Your task to perform on an android device: What's the latest video from GameSpot Reviews? Image 0: 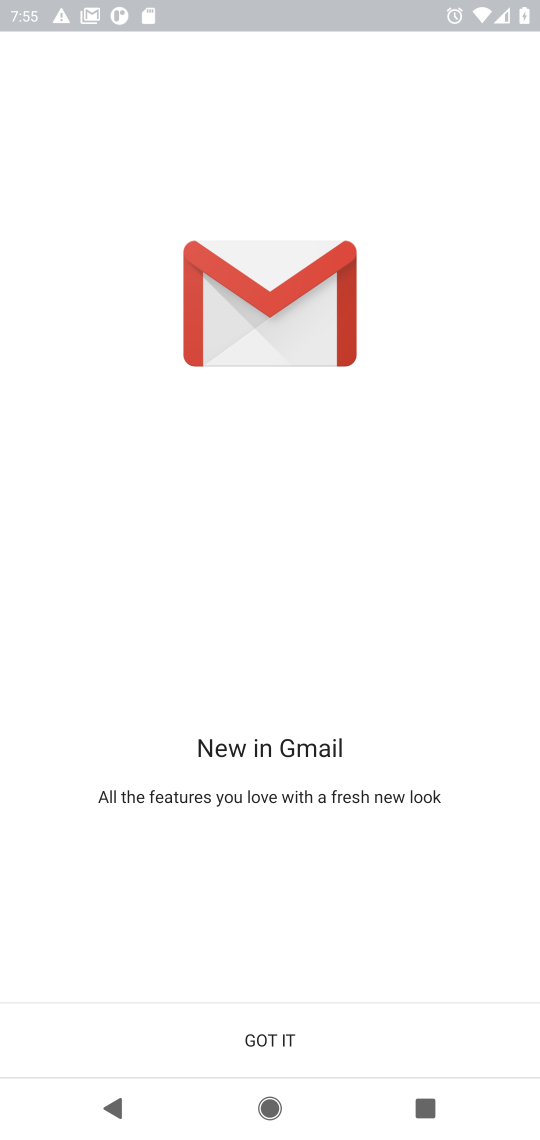
Step 0: press home button
Your task to perform on an android device: What's the latest video from GameSpot Reviews? Image 1: 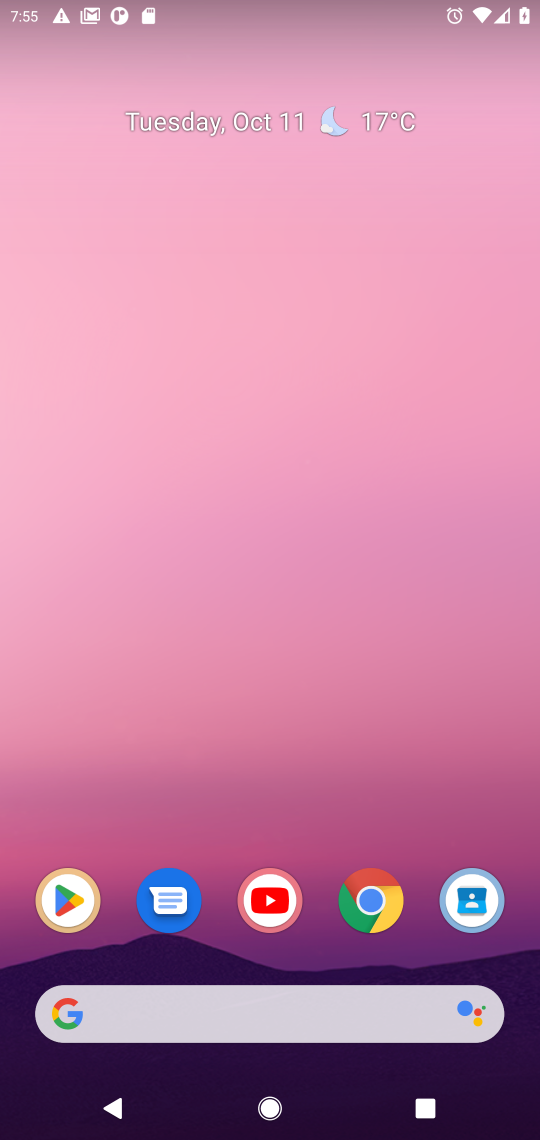
Step 1: click (364, 899)
Your task to perform on an android device: What's the latest video from GameSpot Reviews? Image 2: 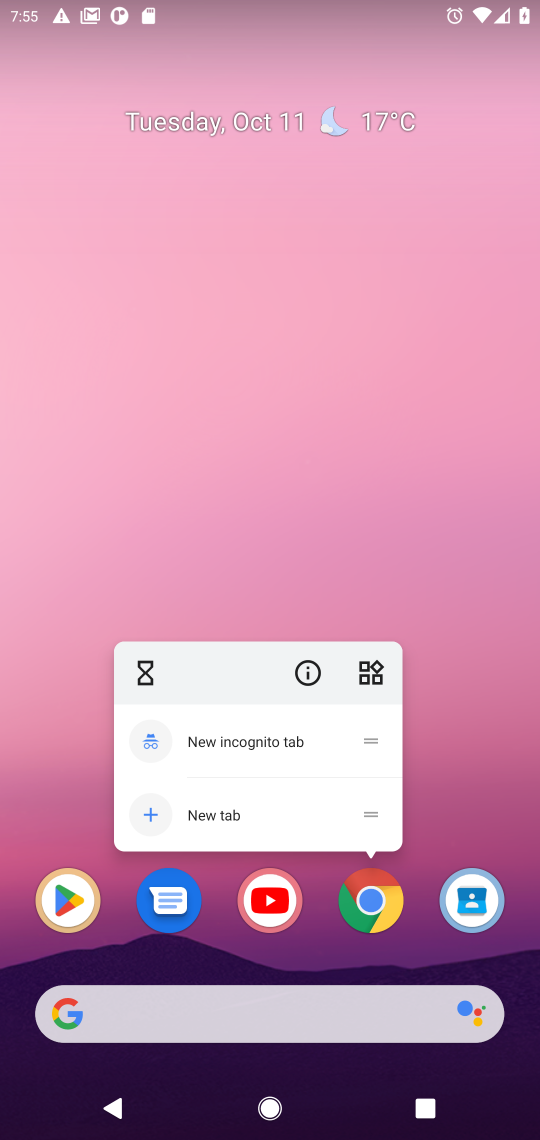
Step 2: click (378, 892)
Your task to perform on an android device: What's the latest video from GameSpot Reviews? Image 3: 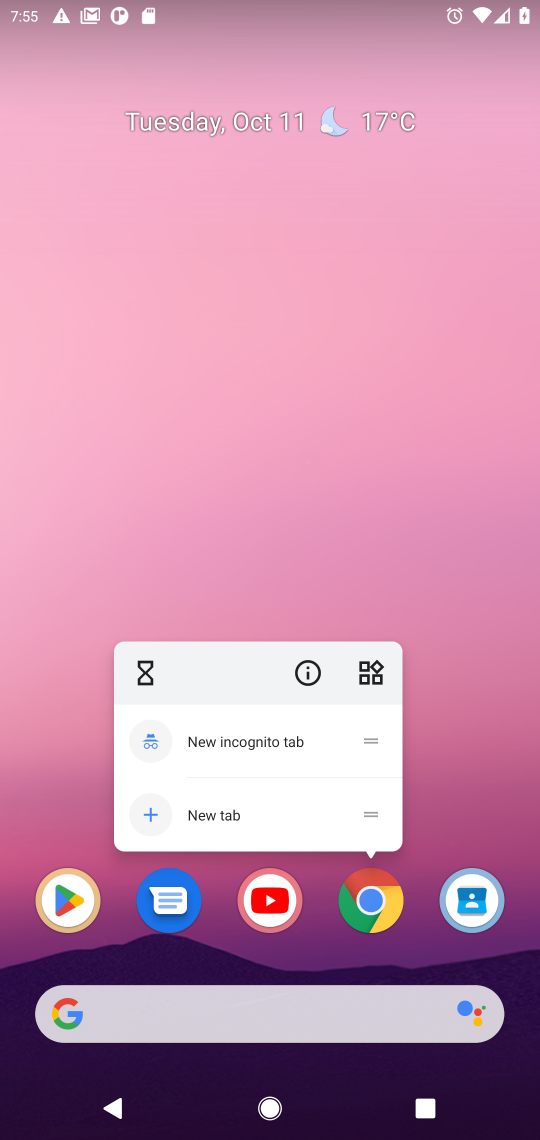
Step 3: click (370, 901)
Your task to perform on an android device: What's the latest video from GameSpot Reviews? Image 4: 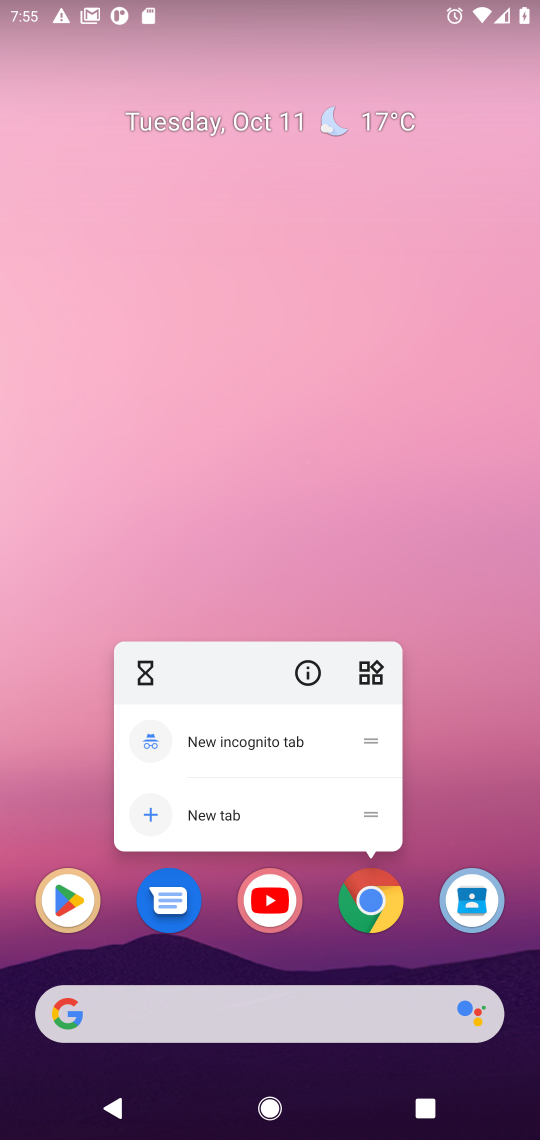
Step 4: click (370, 903)
Your task to perform on an android device: What's the latest video from GameSpot Reviews? Image 5: 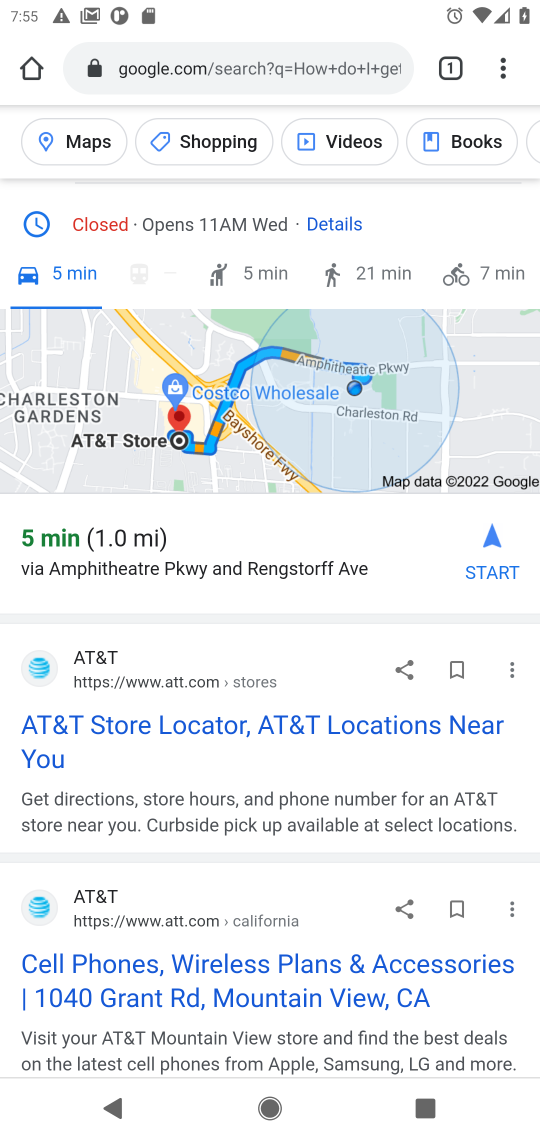
Step 5: click (343, 53)
Your task to perform on an android device: What's the latest video from GameSpot Reviews? Image 6: 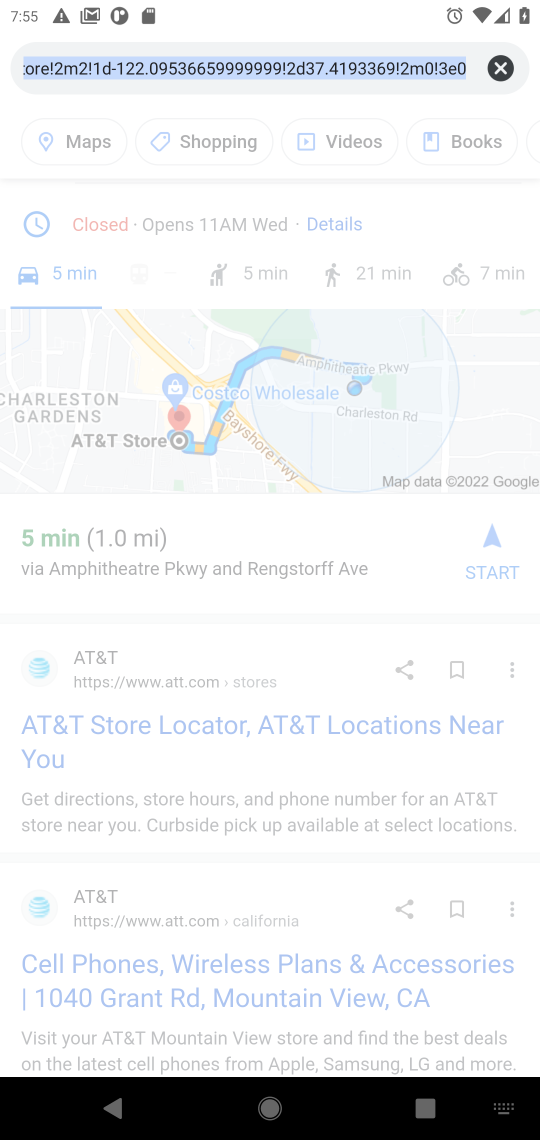
Step 6: click (497, 62)
Your task to perform on an android device: What's the latest video from GameSpot Reviews? Image 7: 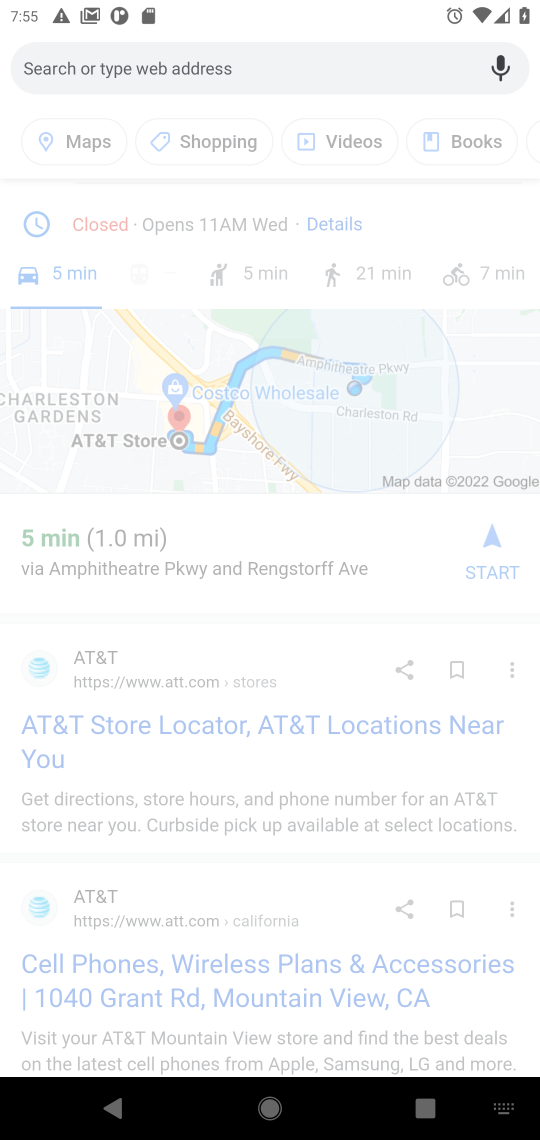
Step 7: type "latest video from GameSpot Reviews"
Your task to perform on an android device: What's the latest video from GameSpot Reviews? Image 8: 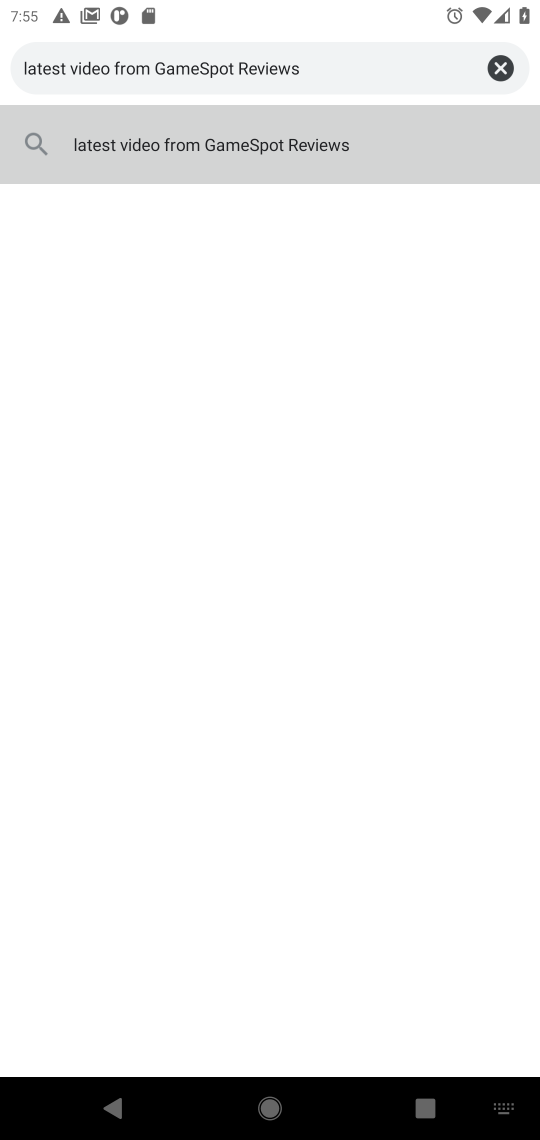
Step 8: press enter
Your task to perform on an android device: What's the latest video from GameSpot Reviews? Image 9: 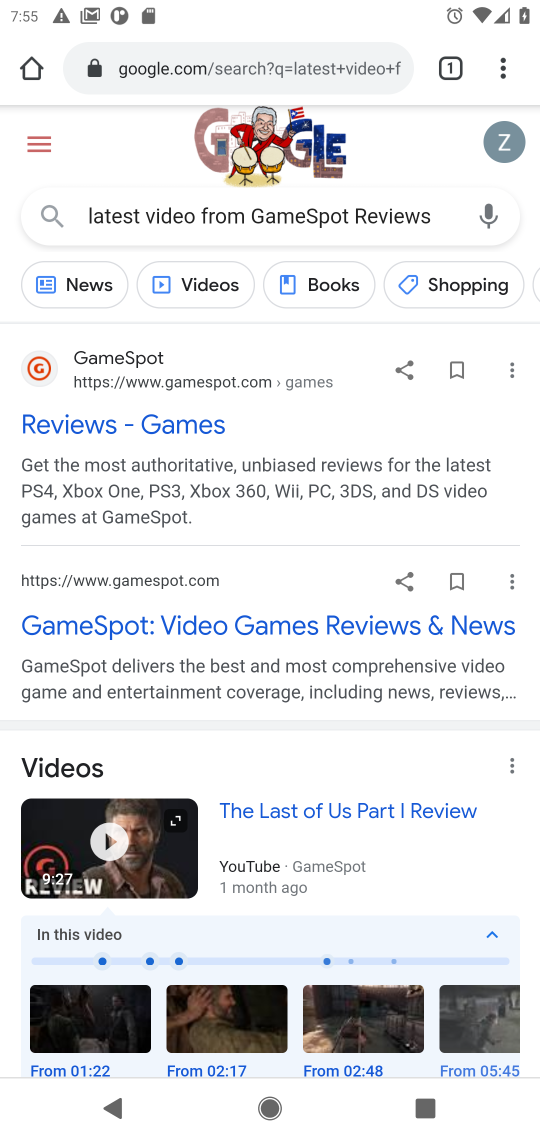
Step 9: click (134, 866)
Your task to perform on an android device: What's the latest video from GameSpot Reviews? Image 10: 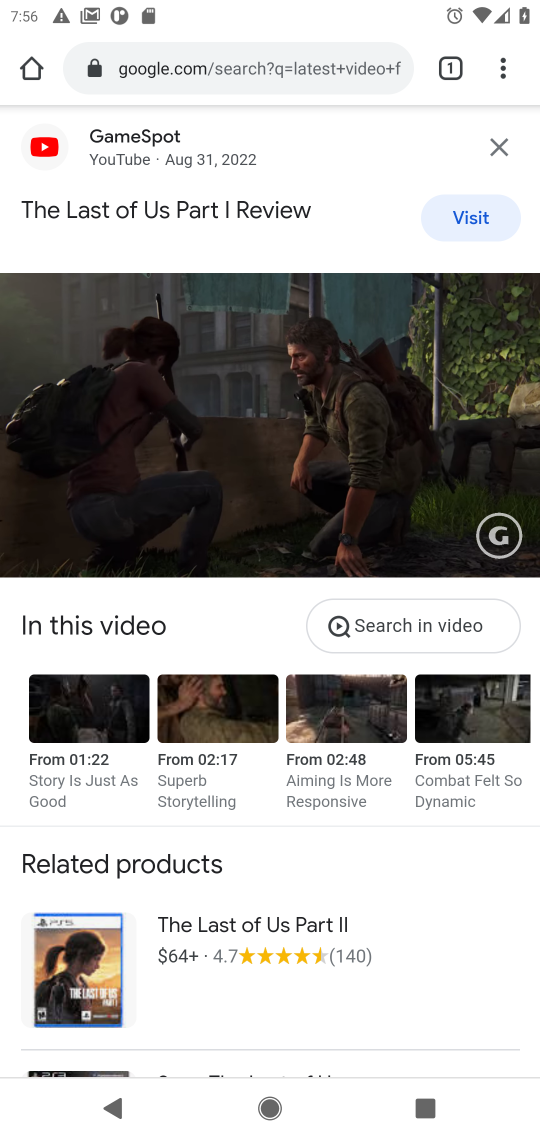
Step 10: click (271, 468)
Your task to perform on an android device: What's the latest video from GameSpot Reviews? Image 11: 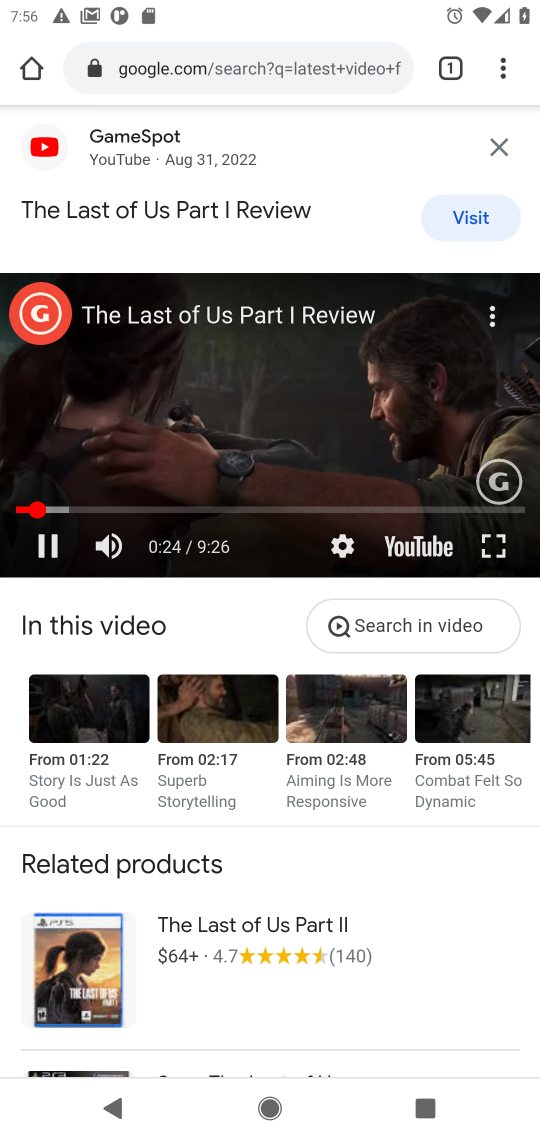
Step 11: click (51, 543)
Your task to perform on an android device: What's the latest video from GameSpot Reviews? Image 12: 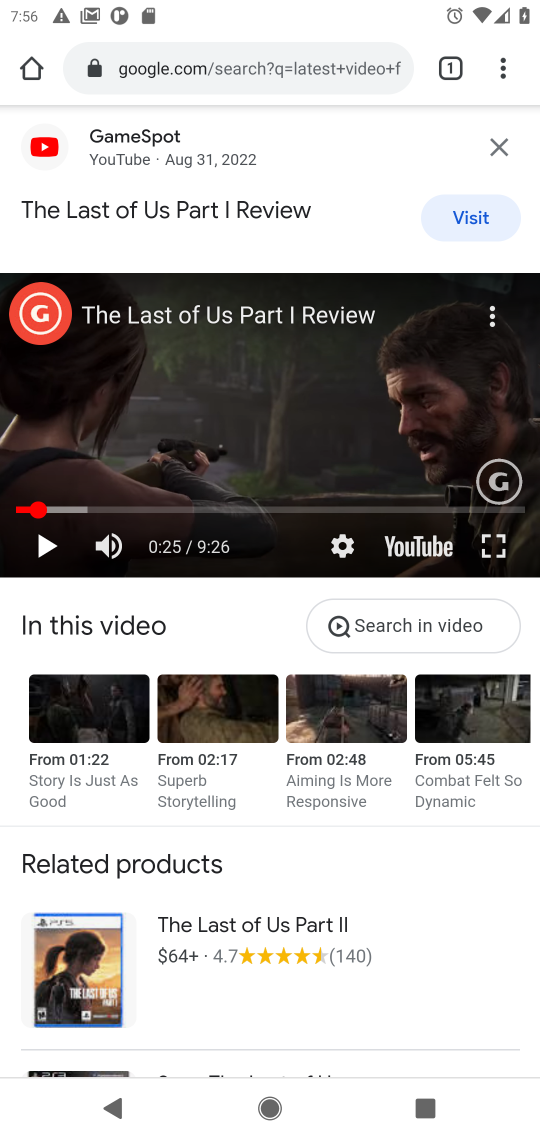
Step 12: task complete